Your task to perform on an android device: change notifications settings Image 0: 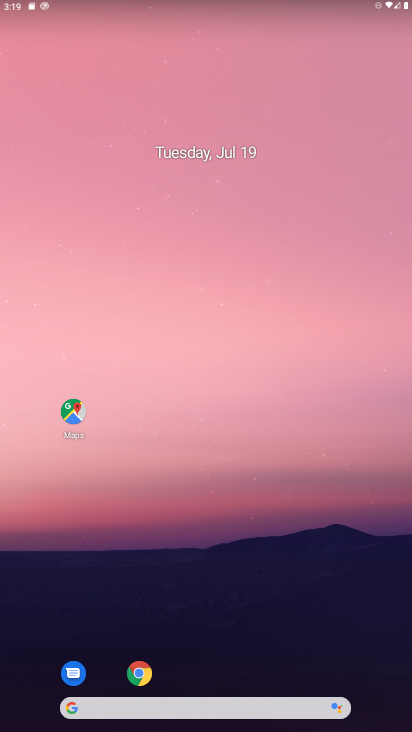
Step 0: drag from (200, 616) to (233, 27)
Your task to perform on an android device: change notifications settings Image 1: 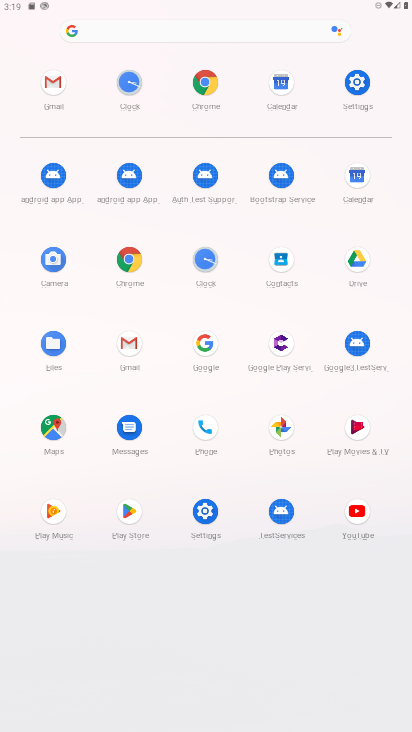
Step 1: click (199, 520)
Your task to perform on an android device: change notifications settings Image 2: 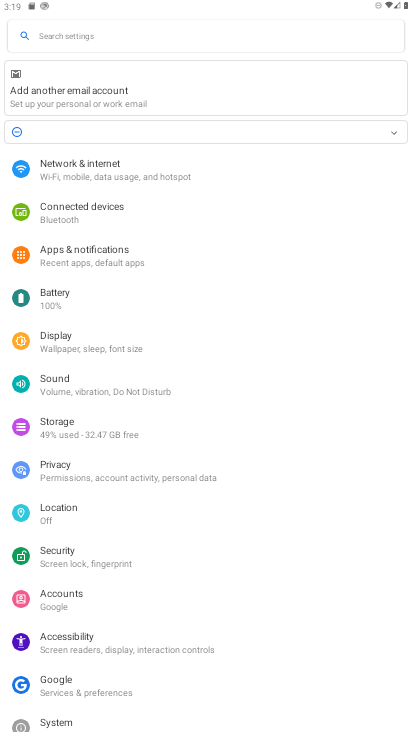
Step 2: click (55, 254)
Your task to perform on an android device: change notifications settings Image 3: 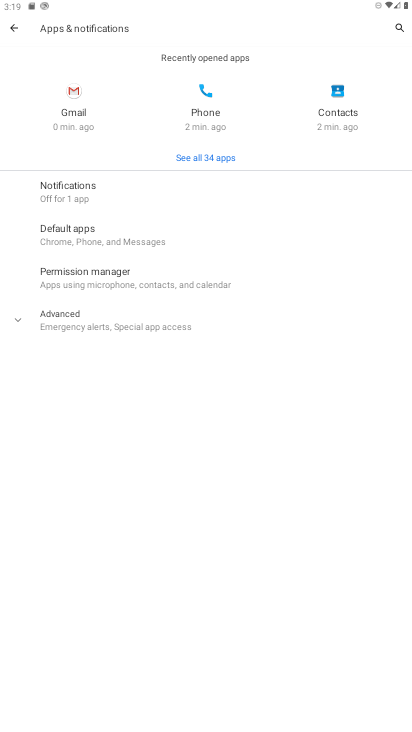
Step 3: click (76, 202)
Your task to perform on an android device: change notifications settings Image 4: 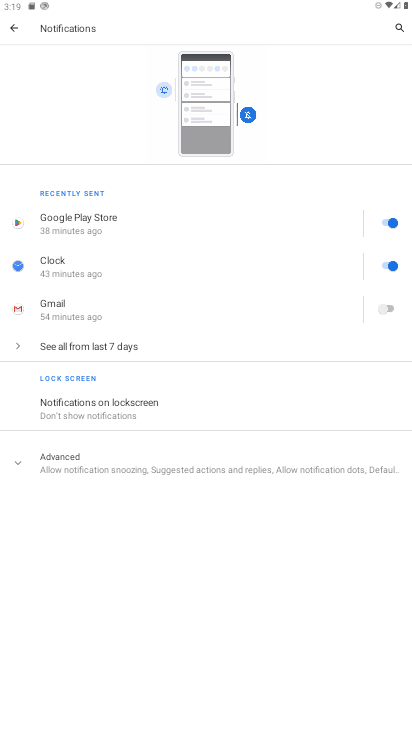
Step 4: click (121, 349)
Your task to perform on an android device: change notifications settings Image 5: 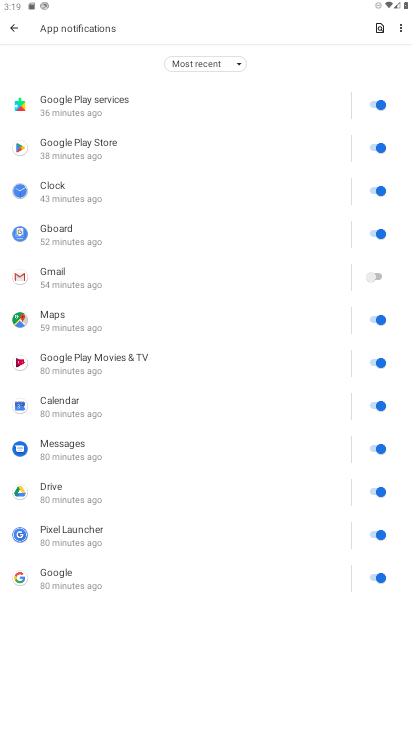
Step 5: click (371, 109)
Your task to perform on an android device: change notifications settings Image 6: 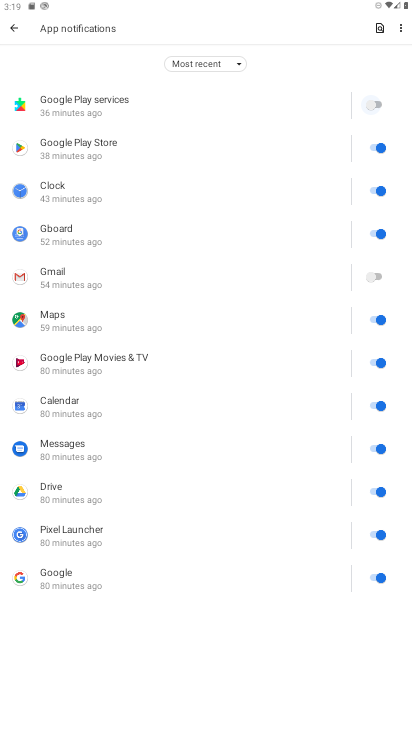
Step 6: click (369, 145)
Your task to perform on an android device: change notifications settings Image 7: 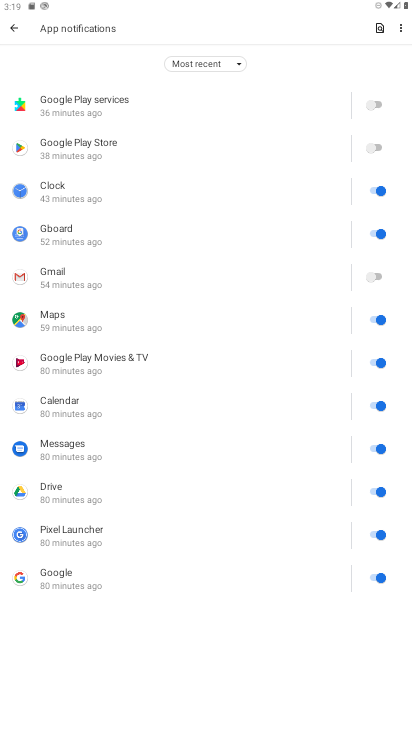
Step 7: click (369, 196)
Your task to perform on an android device: change notifications settings Image 8: 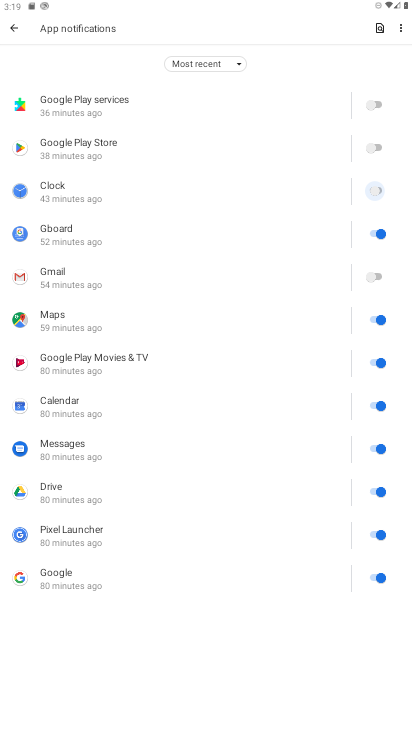
Step 8: click (373, 240)
Your task to perform on an android device: change notifications settings Image 9: 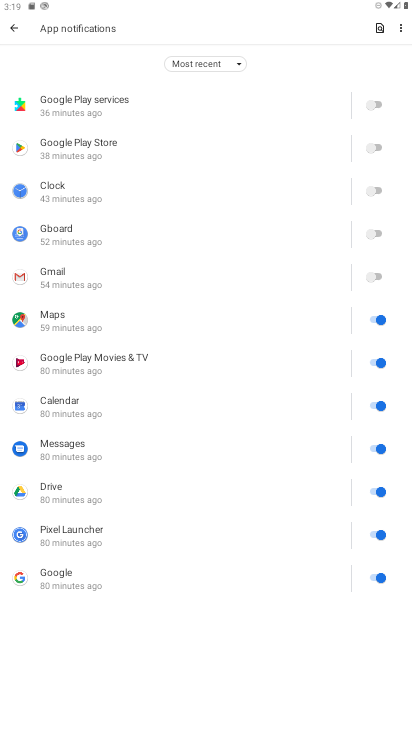
Step 9: click (381, 323)
Your task to perform on an android device: change notifications settings Image 10: 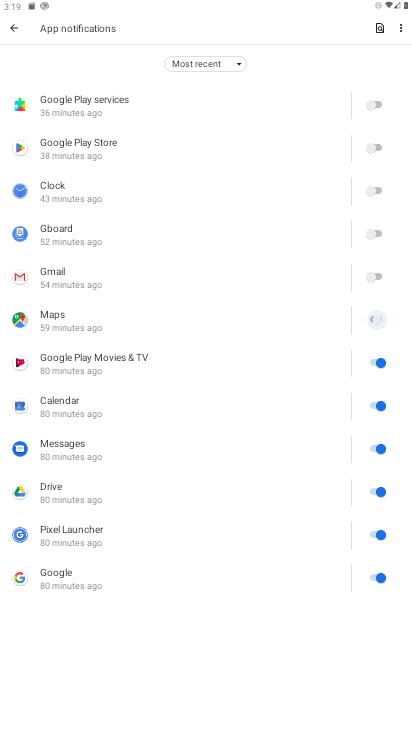
Step 10: click (373, 353)
Your task to perform on an android device: change notifications settings Image 11: 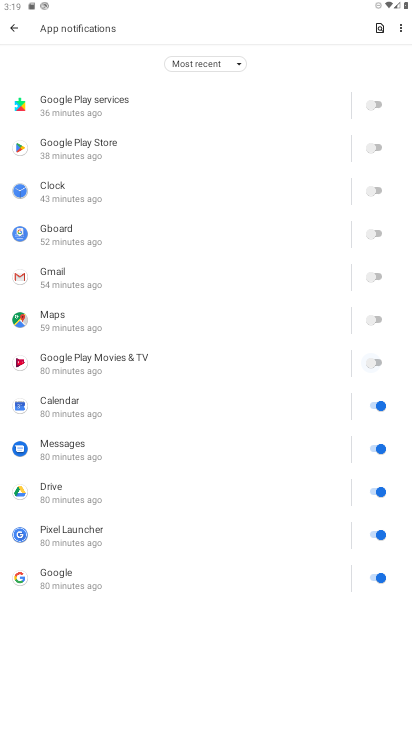
Step 11: click (366, 400)
Your task to perform on an android device: change notifications settings Image 12: 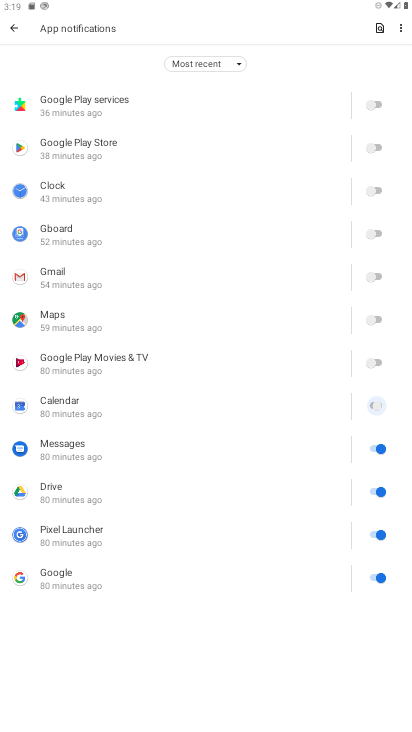
Step 12: click (364, 463)
Your task to perform on an android device: change notifications settings Image 13: 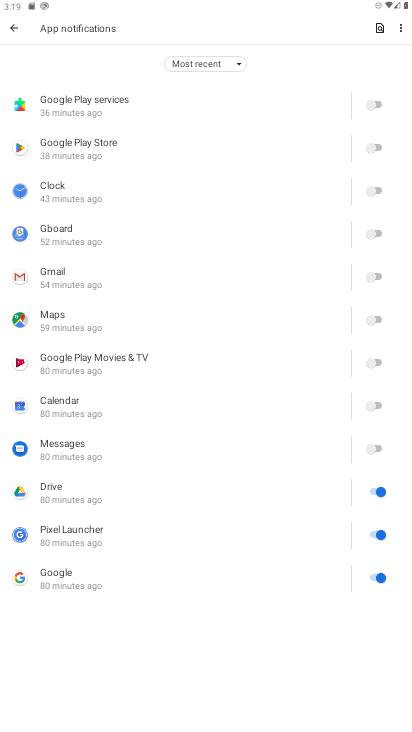
Step 13: click (358, 495)
Your task to perform on an android device: change notifications settings Image 14: 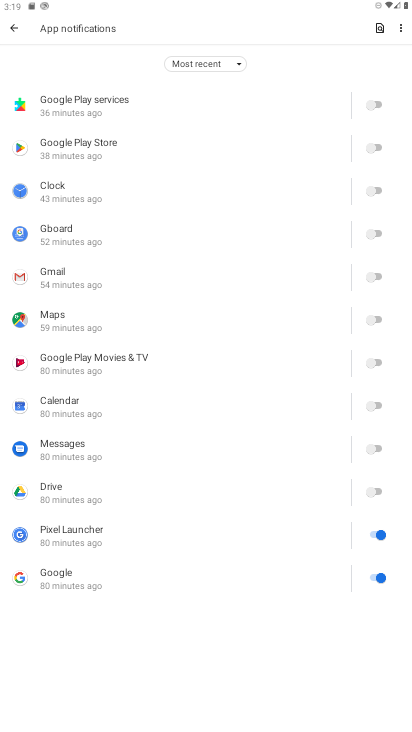
Step 14: click (366, 541)
Your task to perform on an android device: change notifications settings Image 15: 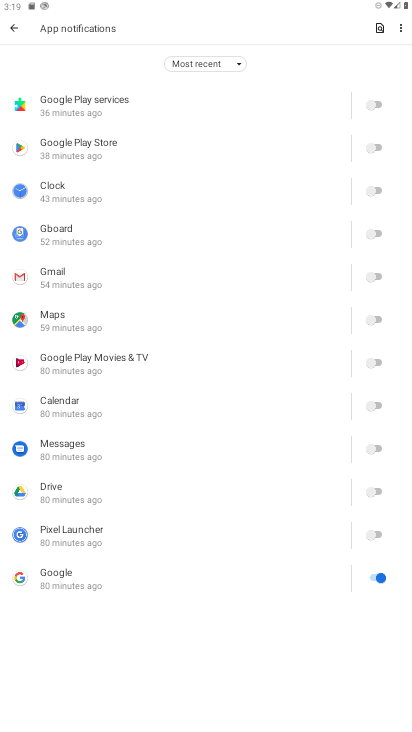
Step 15: click (363, 586)
Your task to perform on an android device: change notifications settings Image 16: 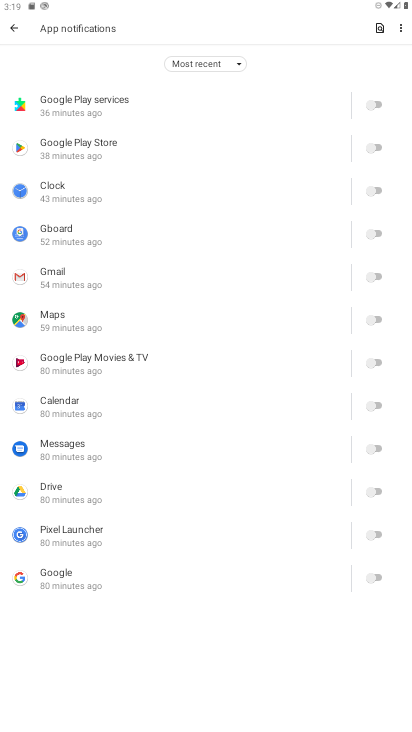
Step 16: task complete